Your task to perform on an android device: Open wifi settings Image 0: 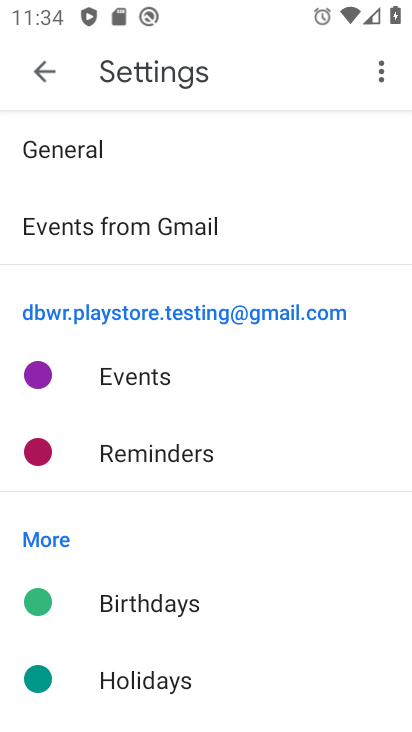
Step 0: press home button
Your task to perform on an android device: Open wifi settings Image 1: 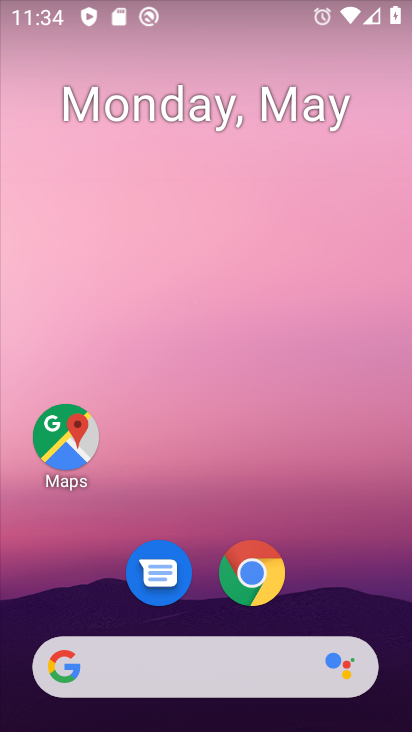
Step 1: drag from (128, 729) to (147, 78)
Your task to perform on an android device: Open wifi settings Image 2: 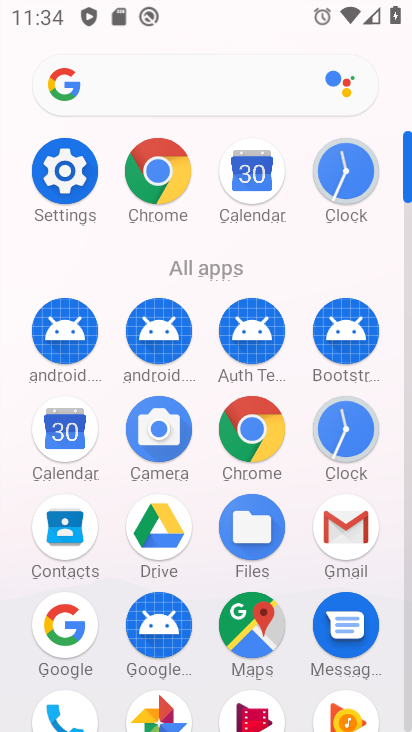
Step 2: drag from (206, 656) to (212, 235)
Your task to perform on an android device: Open wifi settings Image 3: 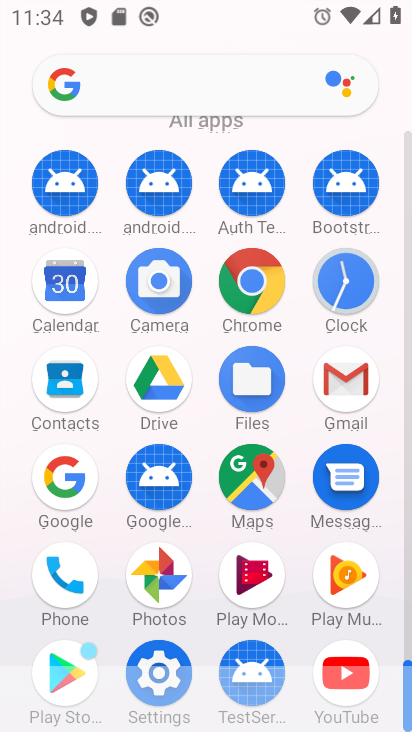
Step 3: click (153, 667)
Your task to perform on an android device: Open wifi settings Image 4: 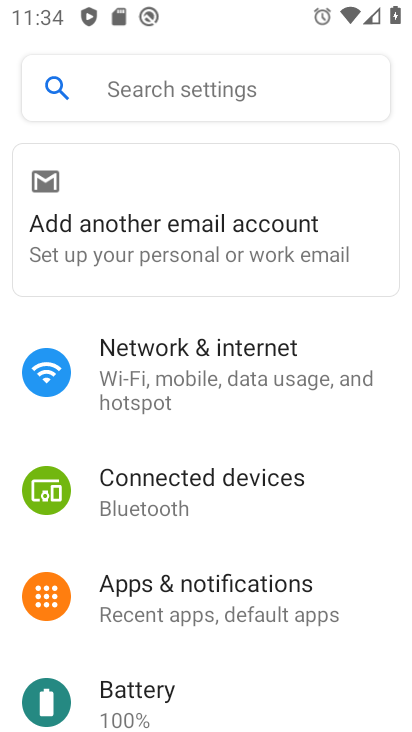
Step 4: click (226, 398)
Your task to perform on an android device: Open wifi settings Image 5: 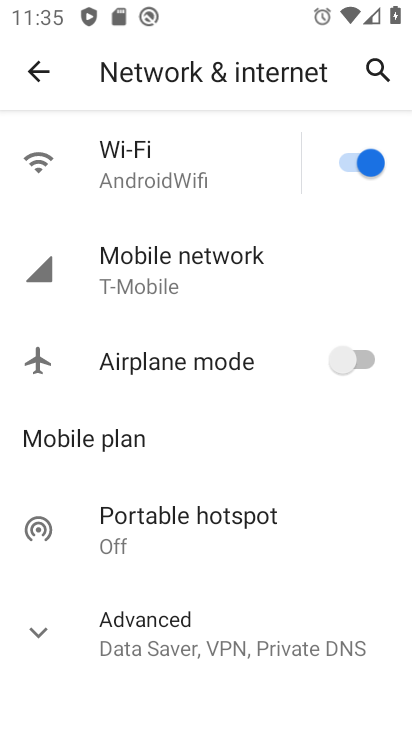
Step 5: click (140, 180)
Your task to perform on an android device: Open wifi settings Image 6: 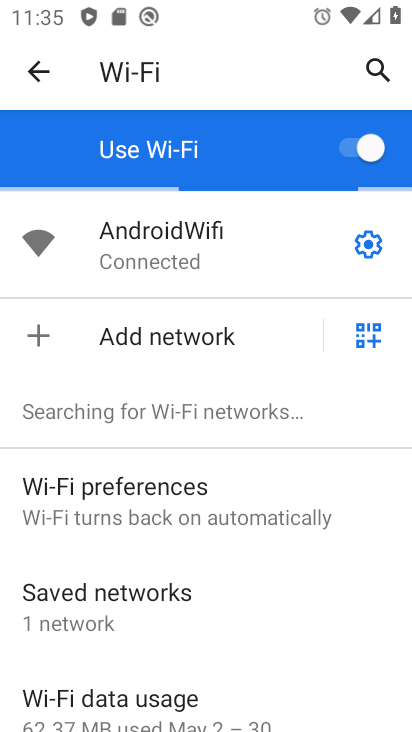
Step 6: task complete